Your task to perform on an android device: open app "Yahoo Mail" (install if not already installed) and go to login screen Image 0: 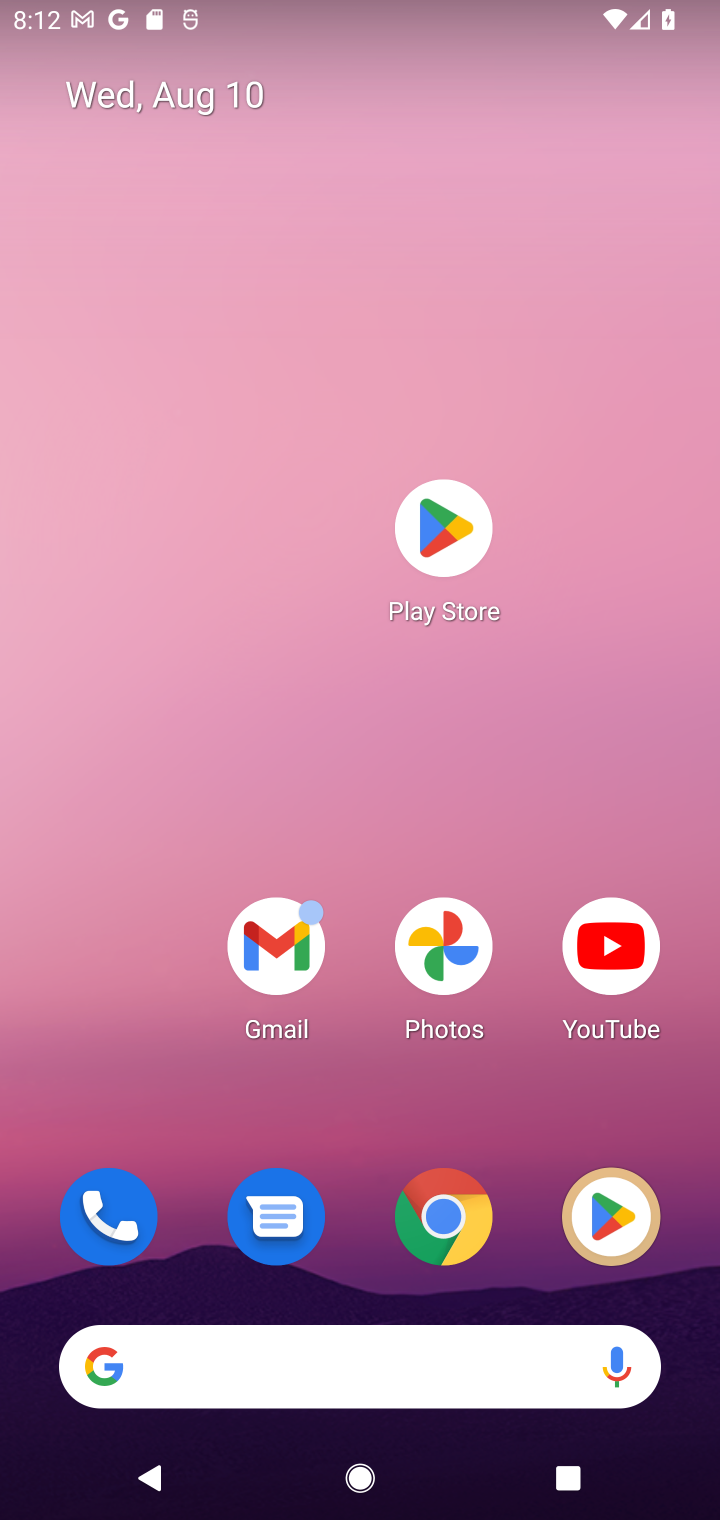
Step 0: press home button
Your task to perform on an android device: open app "Yahoo Mail" (install if not already installed) and go to login screen Image 1: 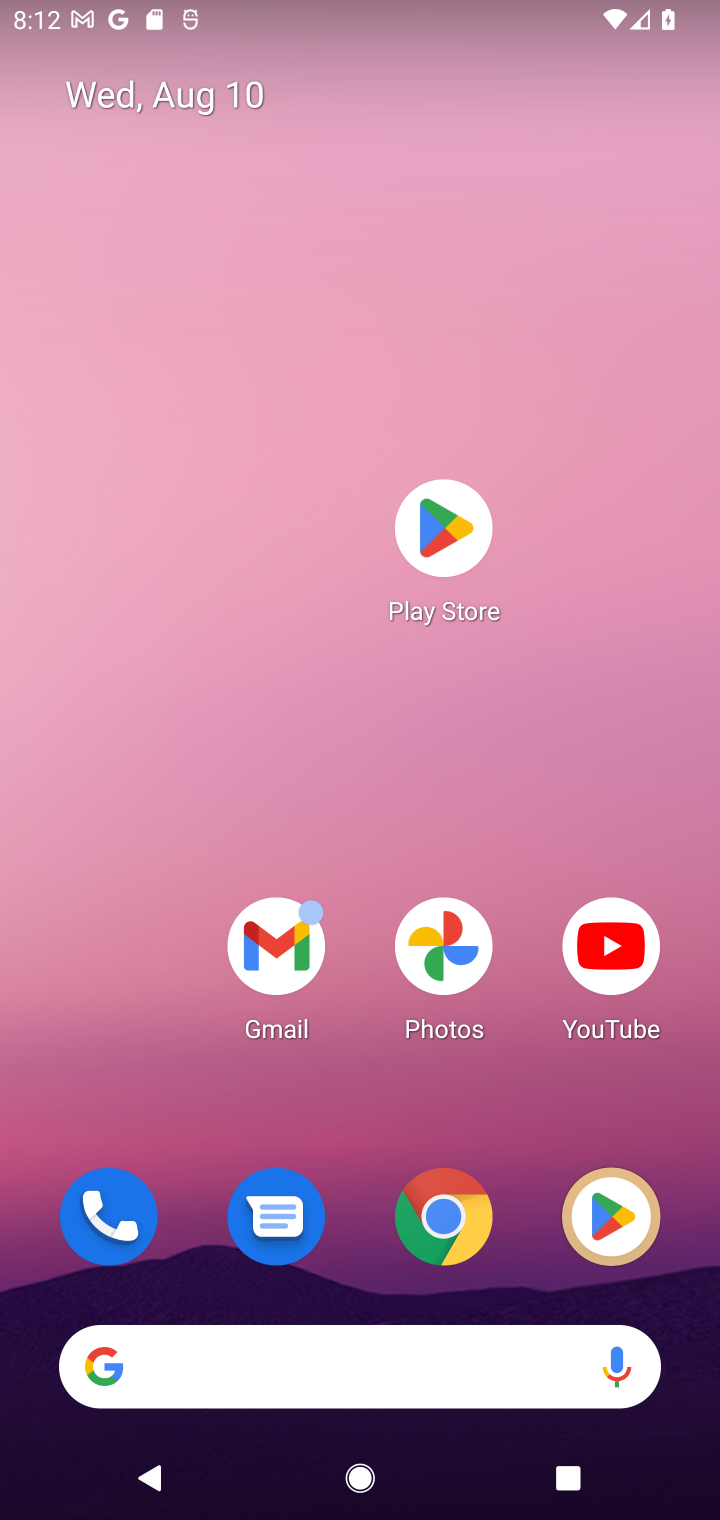
Step 1: click (427, 516)
Your task to perform on an android device: open app "Yahoo Mail" (install if not already installed) and go to login screen Image 2: 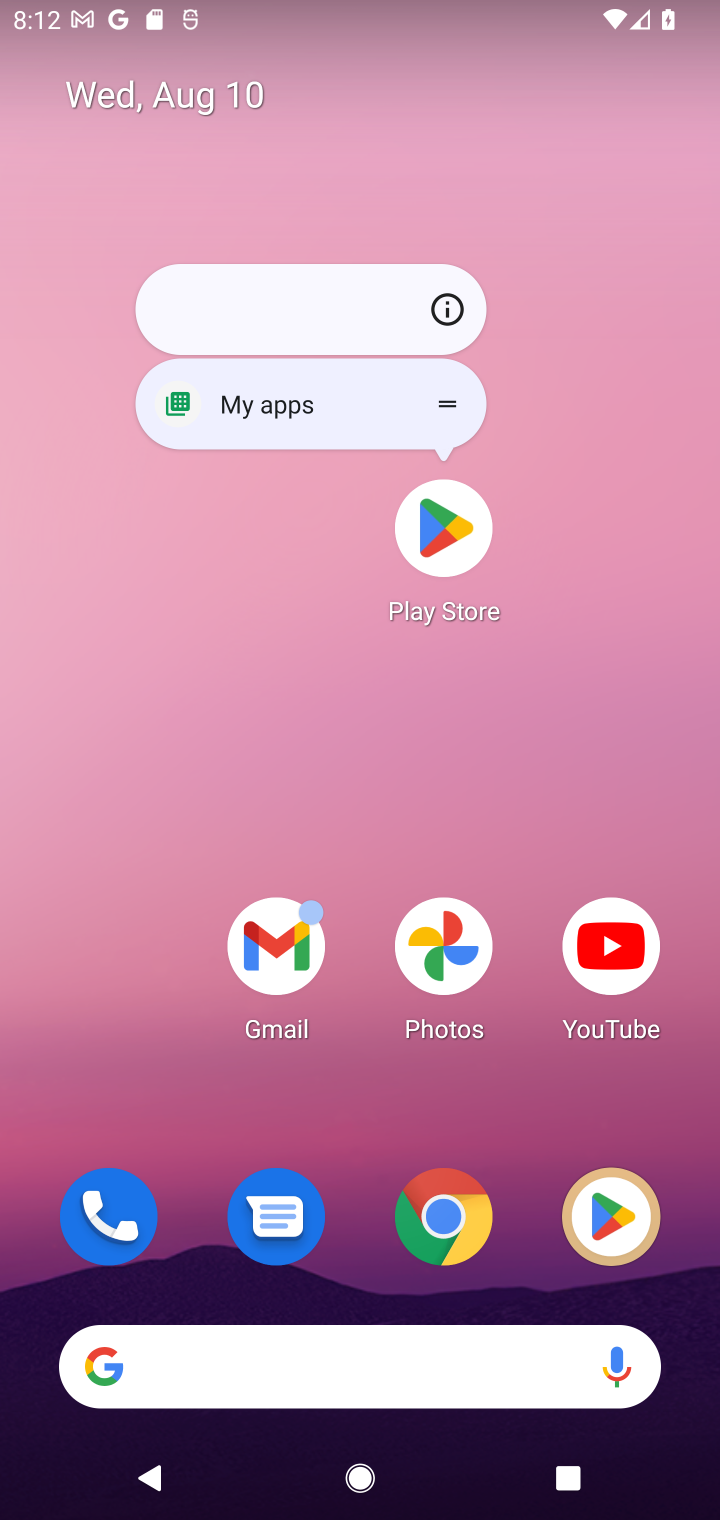
Step 2: click (436, 538)
Your task to perform on an android device: open app "Yahoo Mail" (install if not already installed) and go to login screen Image 3: 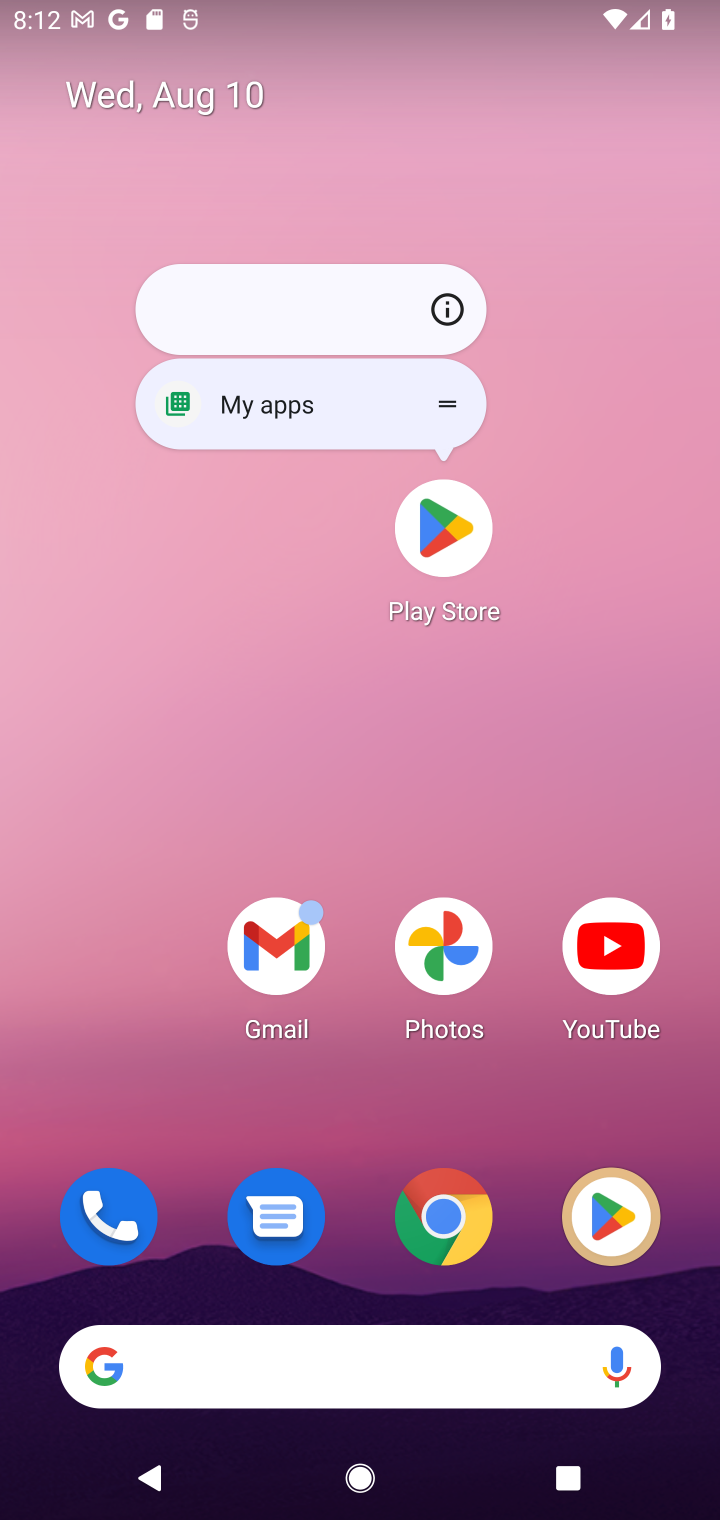
Step 3: click (438, 543)
Your task to perform on an android device: open app "Yahoo Mail" (install if not already installed) and go to login screen Image 4: 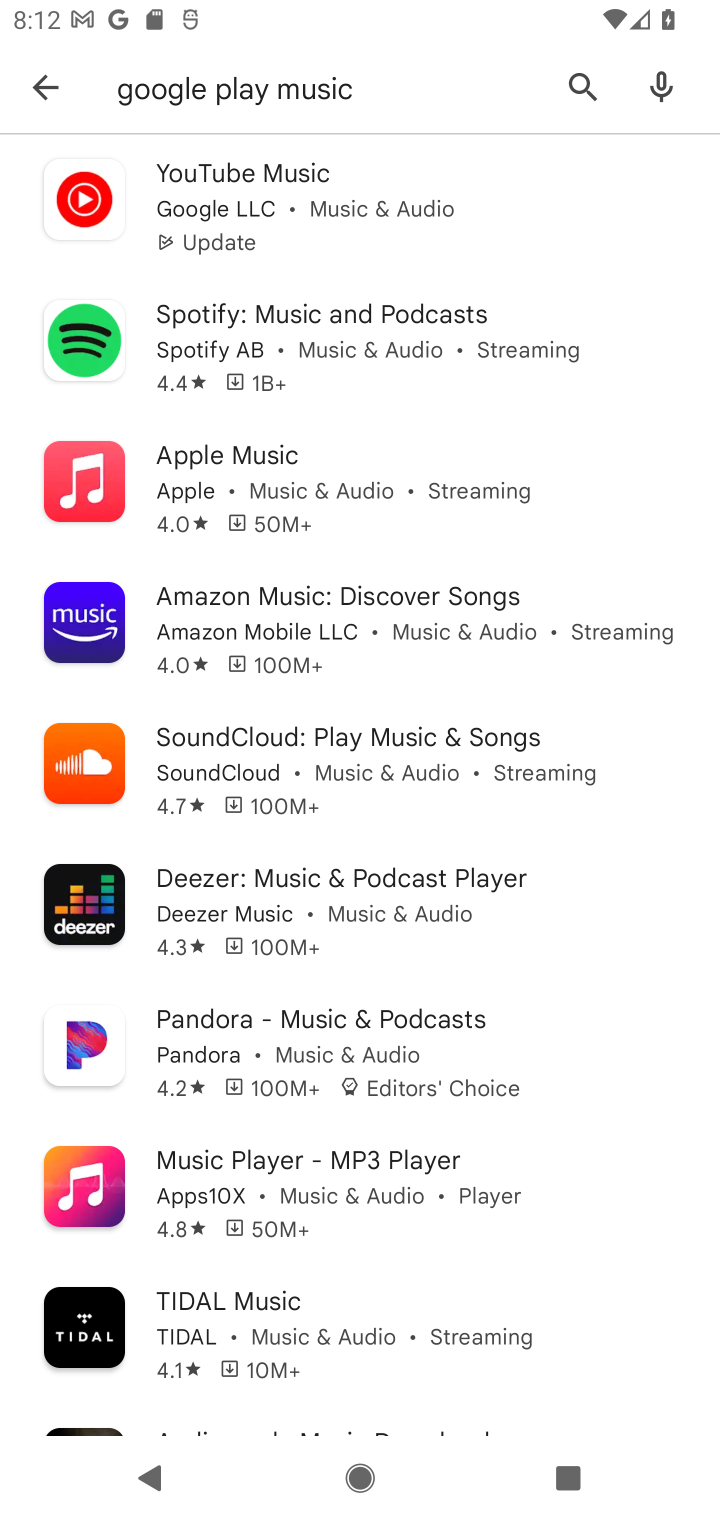
Step 4: click (573, 72)
Your task to perform on an android device: open app "Yahoo Mail" (install if not already installed) and go to login screen Image 5: 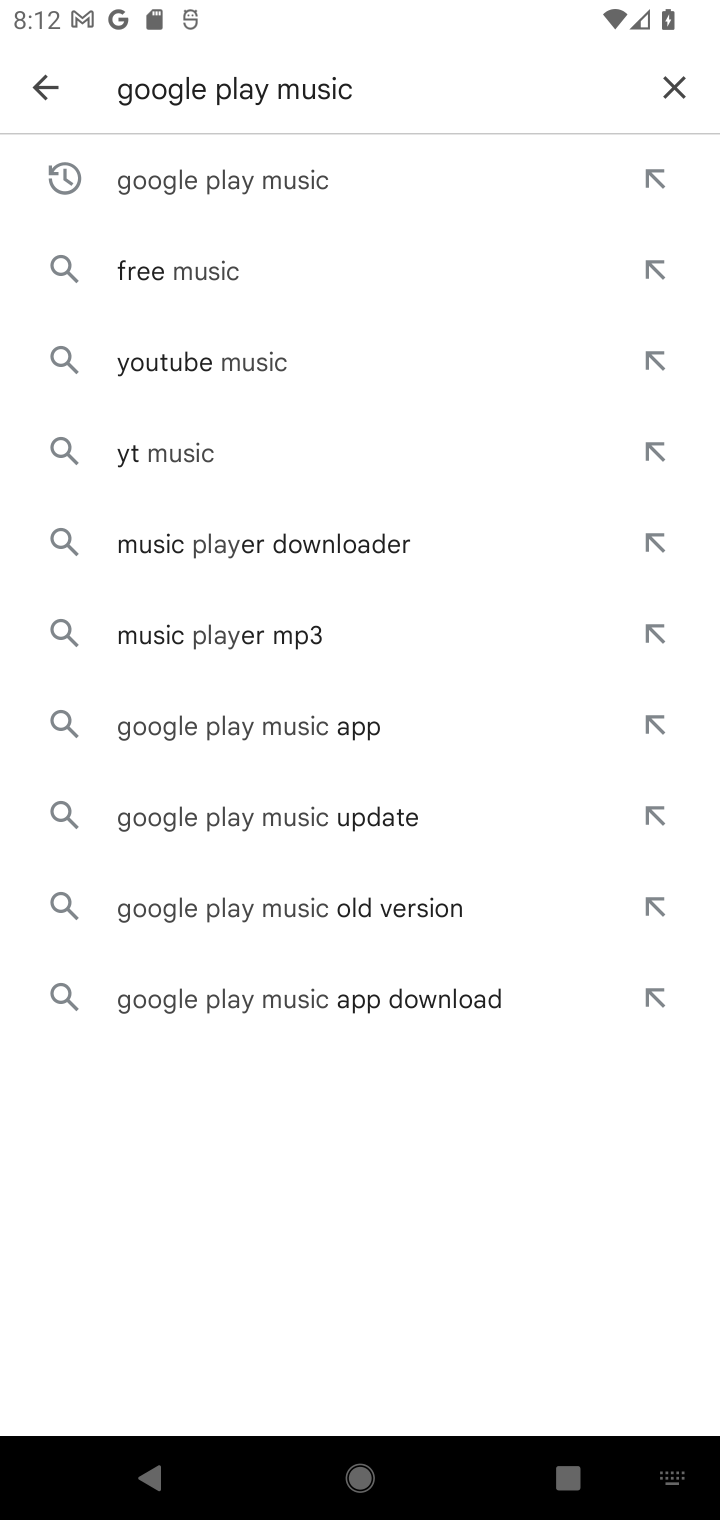
Step 5: click (670, 75)
Your task to perform on an android device: open app "Yahoo Mail" (install if not already installed) and go to login screen Image 6: 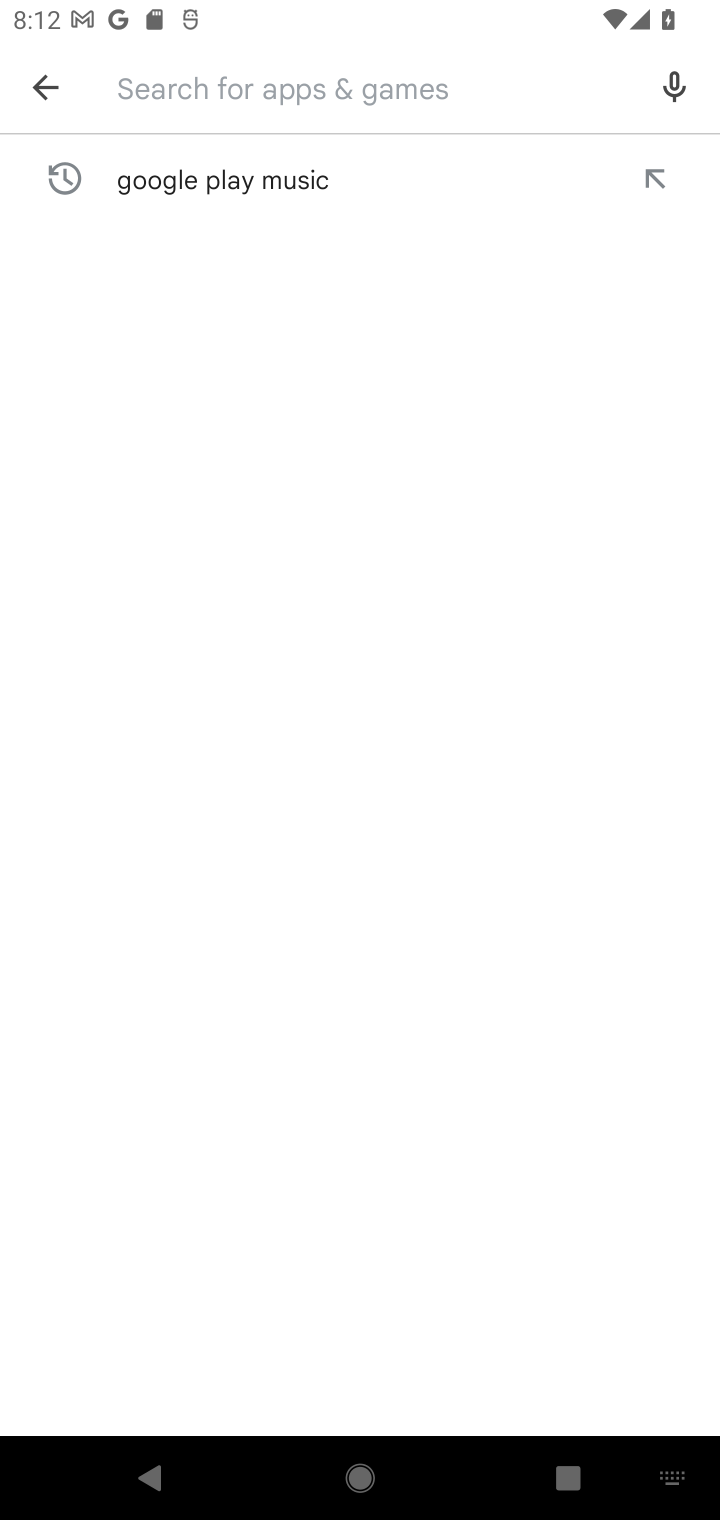
Step 6: type "Yahoo Mail"
Your task to perform on an android device: open app "Yahoo Mail" (install if not already installed) and go to login screen Image 7: 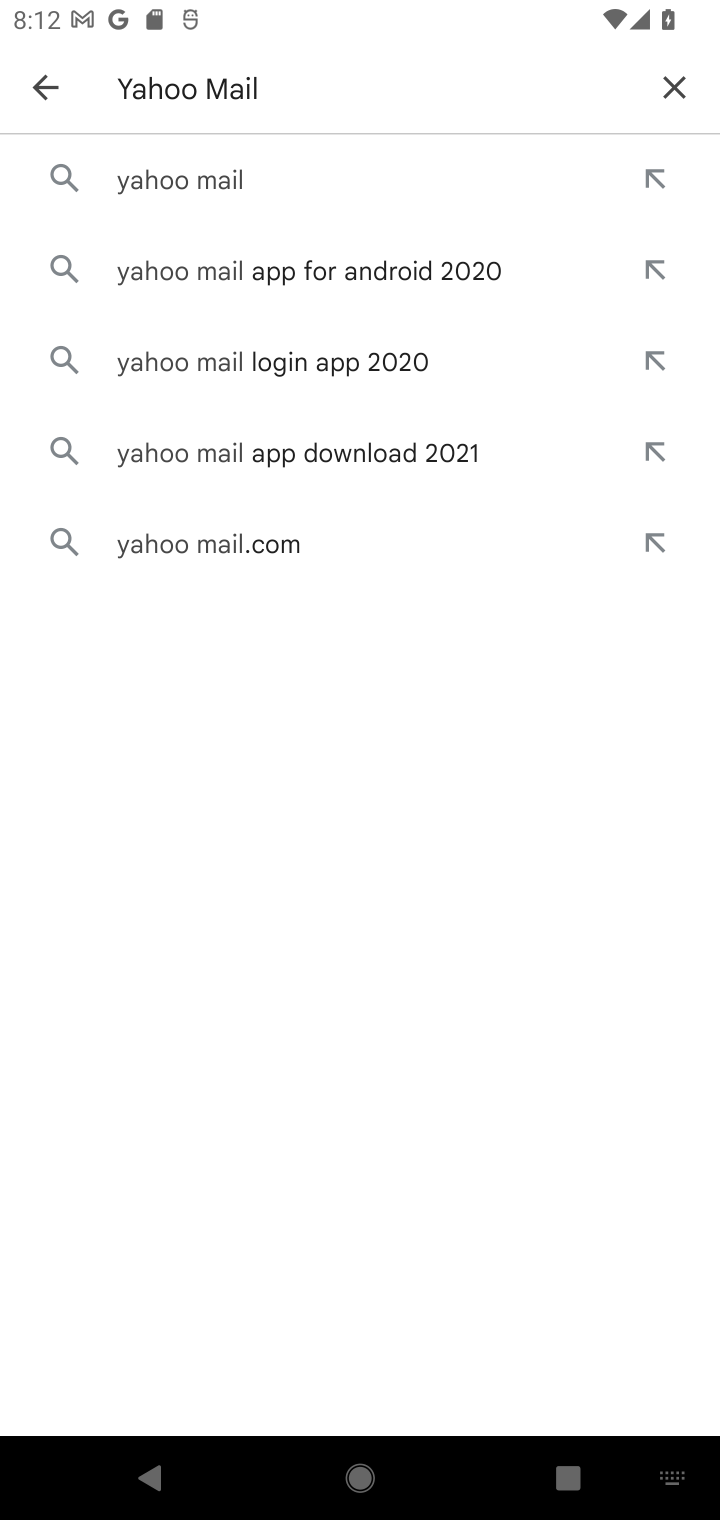
Step 7: click (198, 173)
Your task to perform on an android device: open app "Yahoo Mail" (install if not already installed) and go to login screen Image 8: 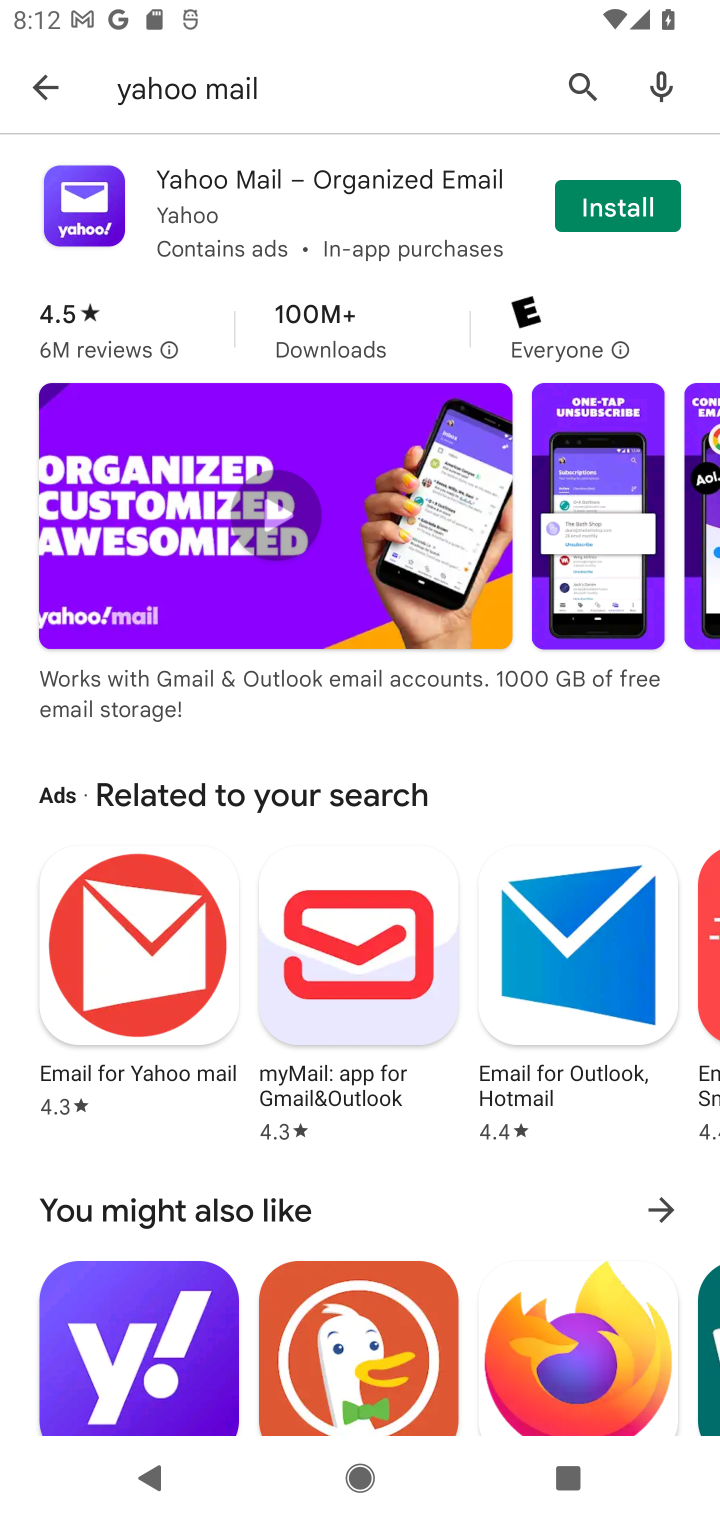
Step 8: click (630, 195)
Your task to perform on an android device: open app "Yahoo Mail" (install if not already installed) and go to login screen Image 9: 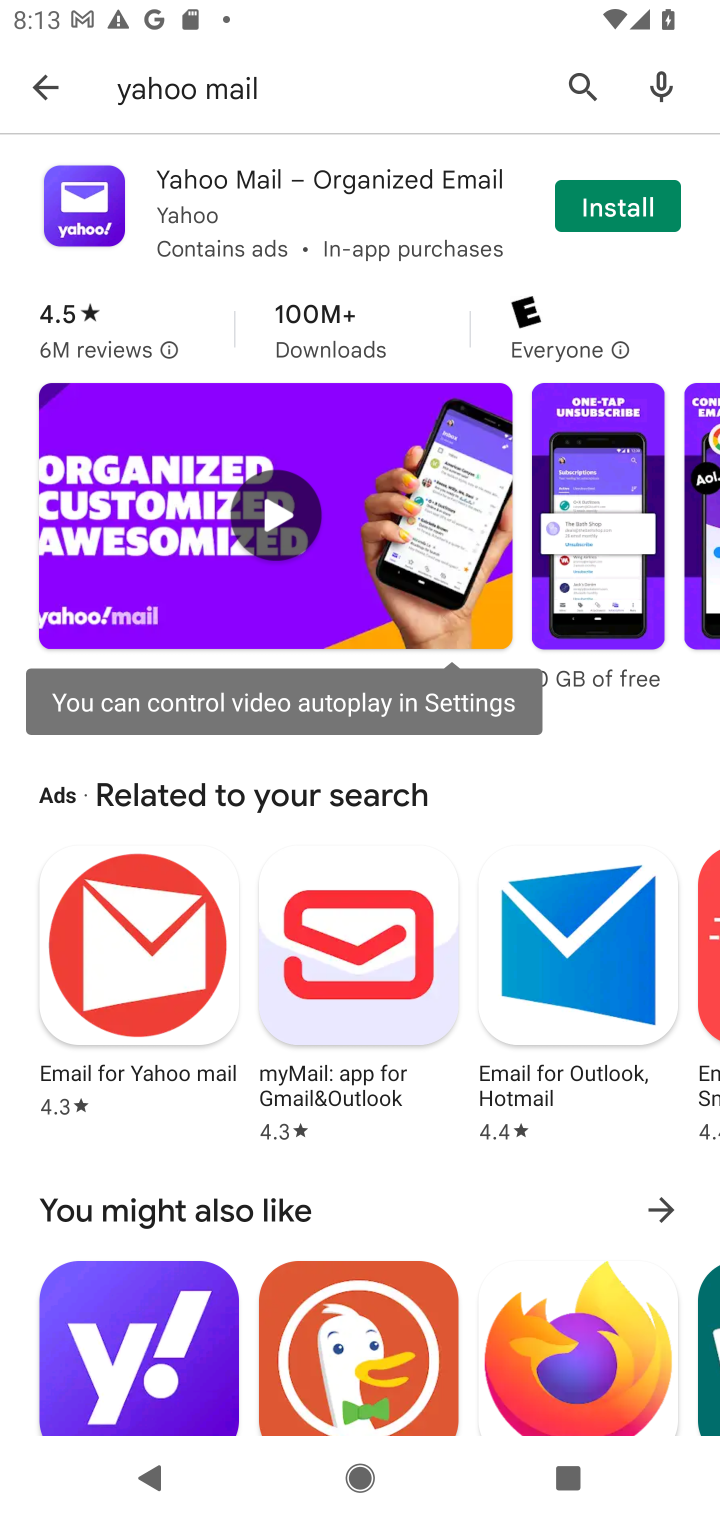
Step 9: click (609, 208)
Your task to perform on an android device: open app "Yahoo Mail" (install if not already installed) and go to login screen Image 10: 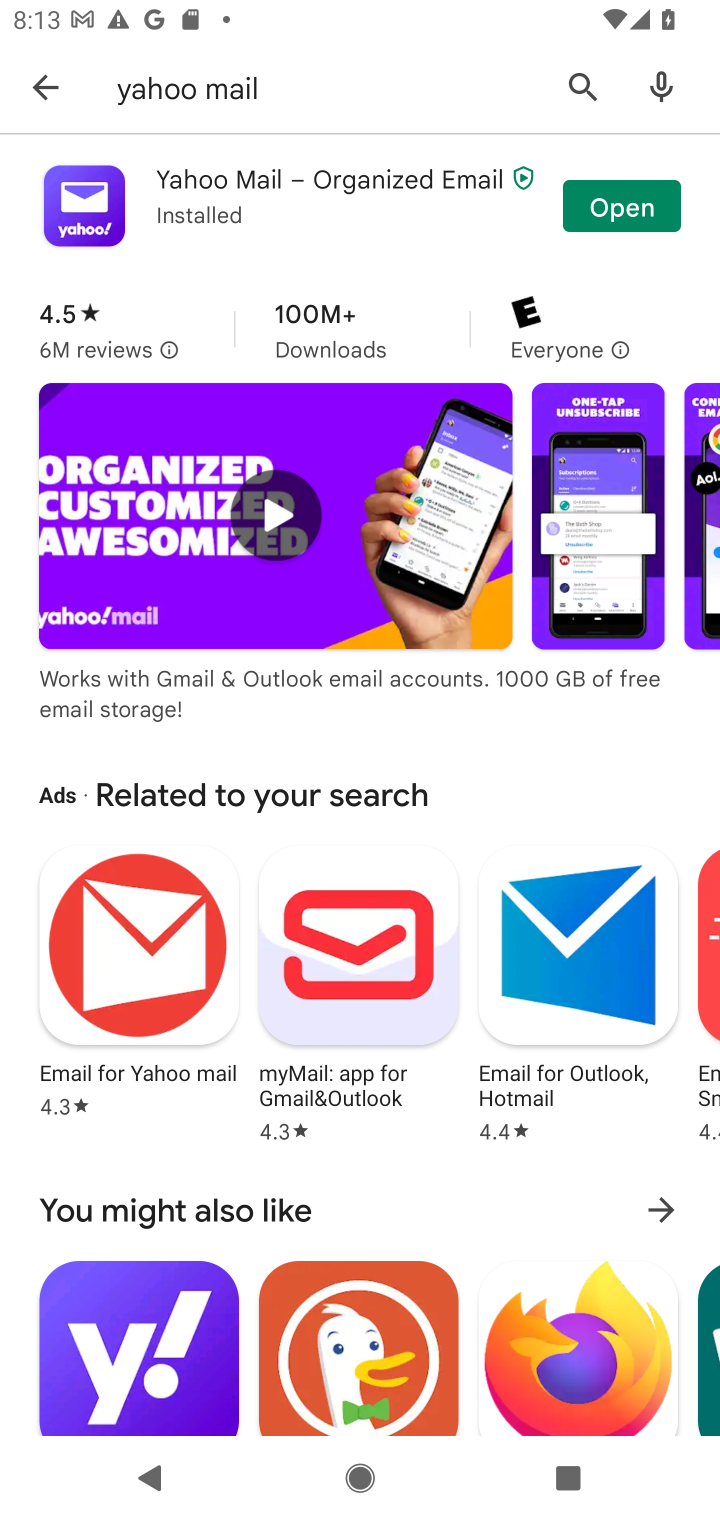
Step 10: click (602, 201)
Your task to perform on an android device: open app "Yahoo Mail" (install if not already installed) and go to login screen Image 11: 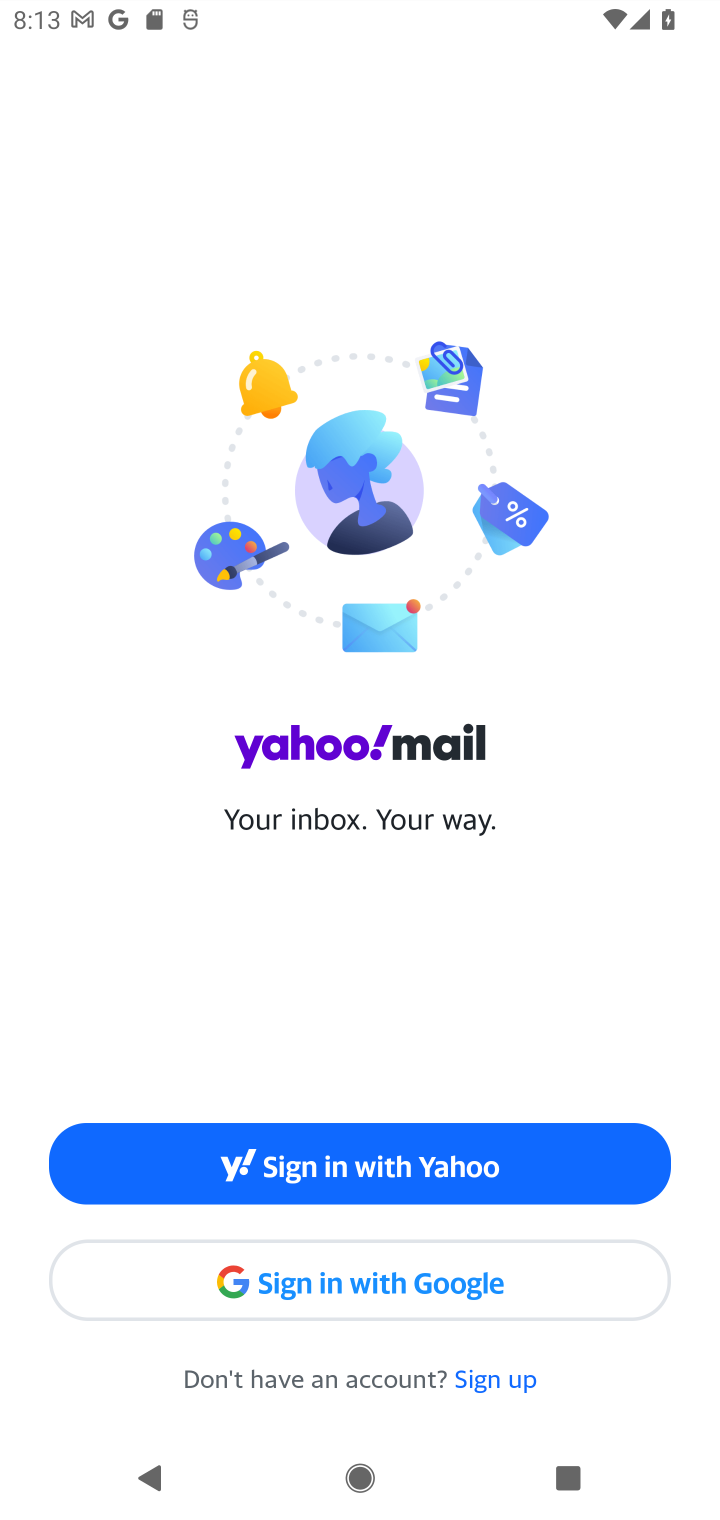
Step 11: task complete